Your task to perform on an android device: change the clock display to analog Image 0: 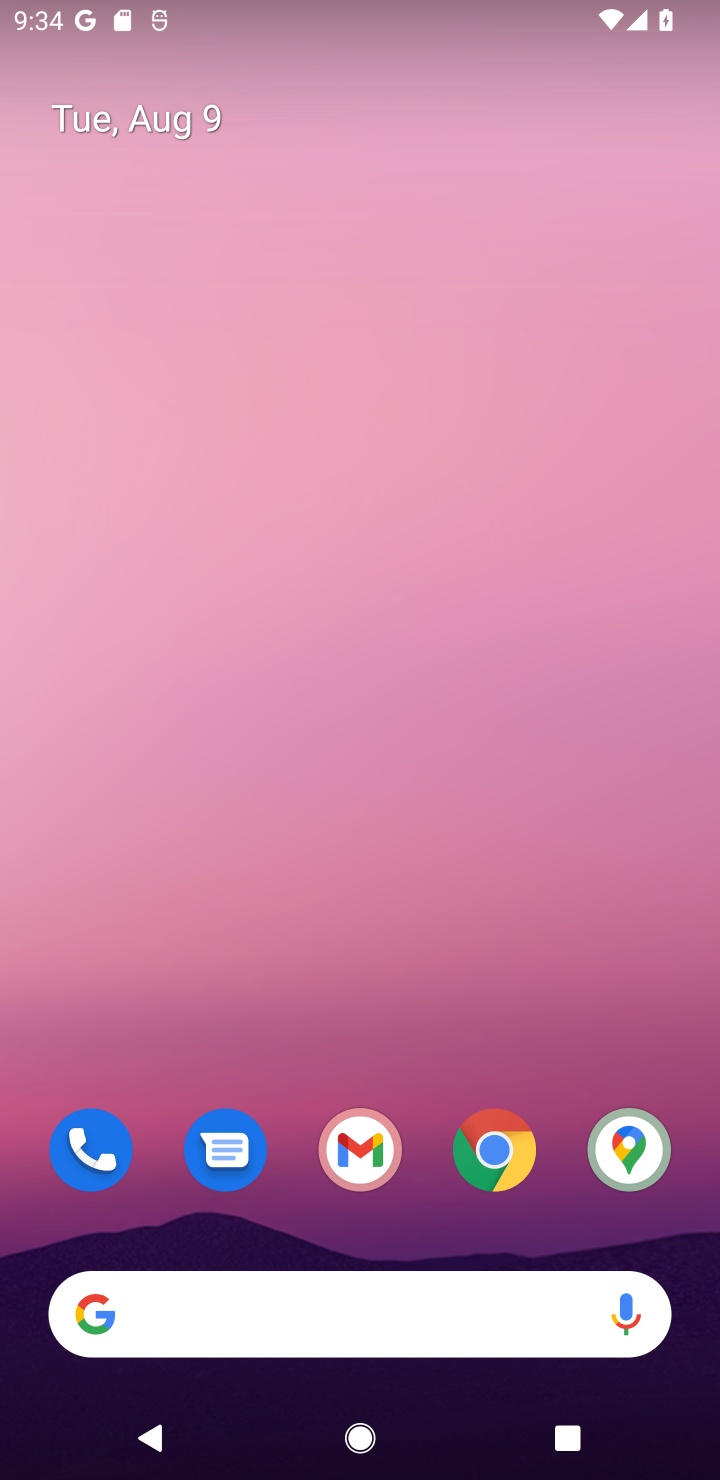
Step 0: drag from (358, 1207) to (447, 5)
Your task to perform on an android device: change the clock display to analog Image 1: 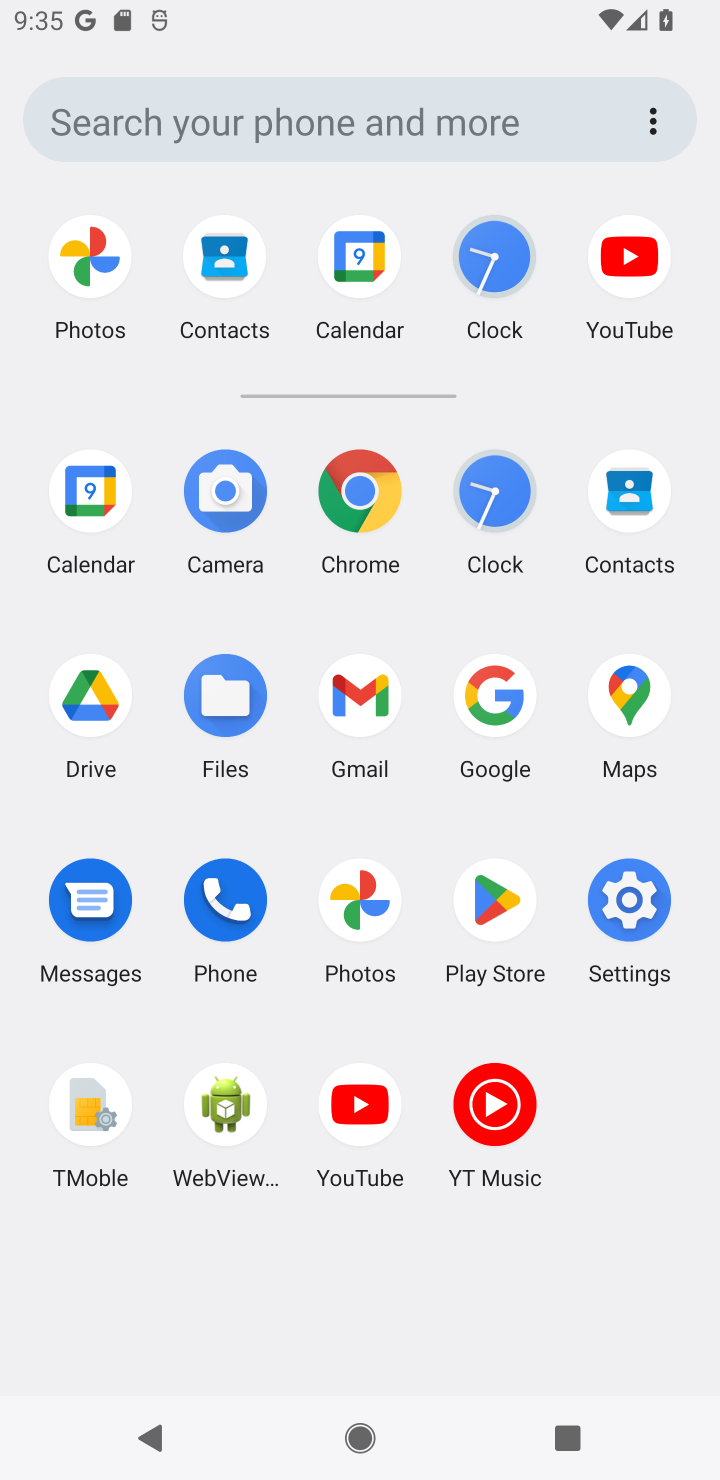
Step 1: click (495, 530)
Your task to perform on an android device: change the clock display to analog Image 2: 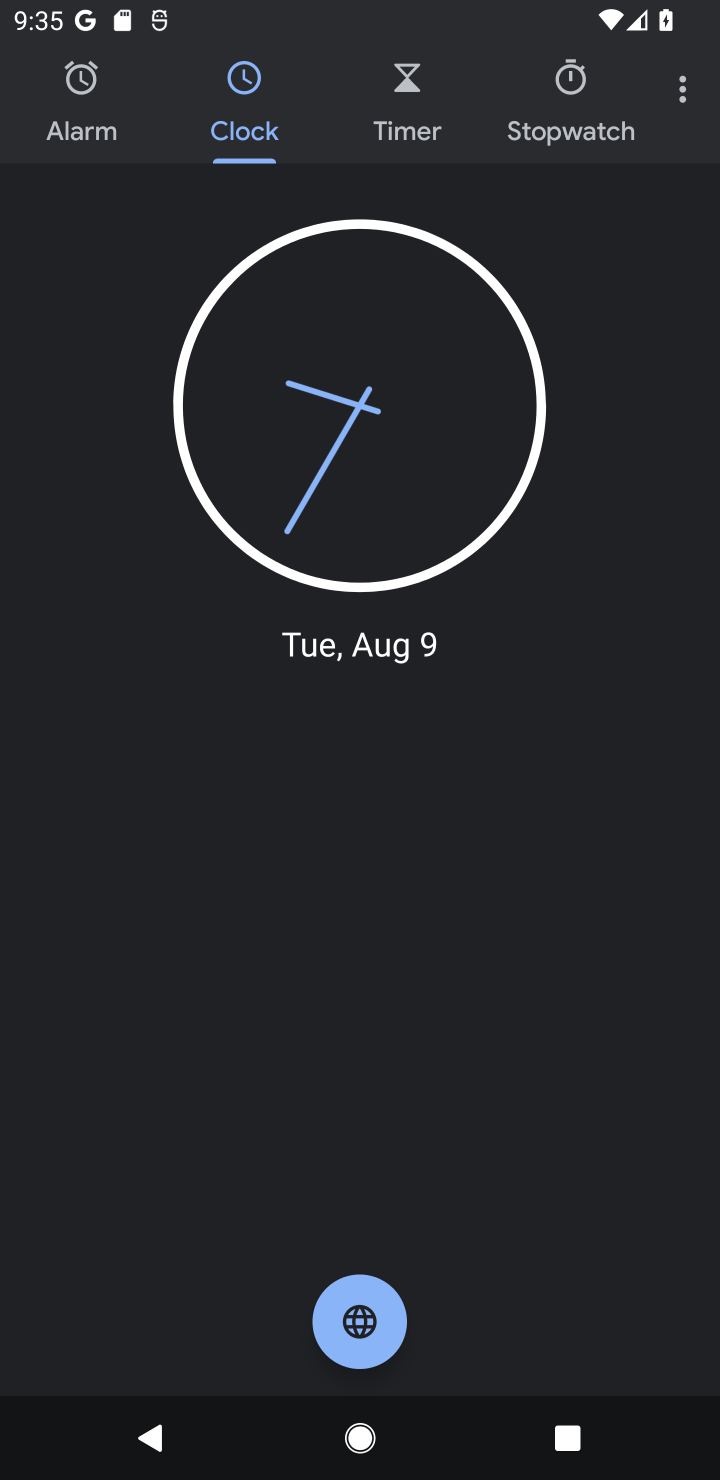
Step 2: click (676, 84)
Your task to perform on an android device: change the clock display to analog Image 3: 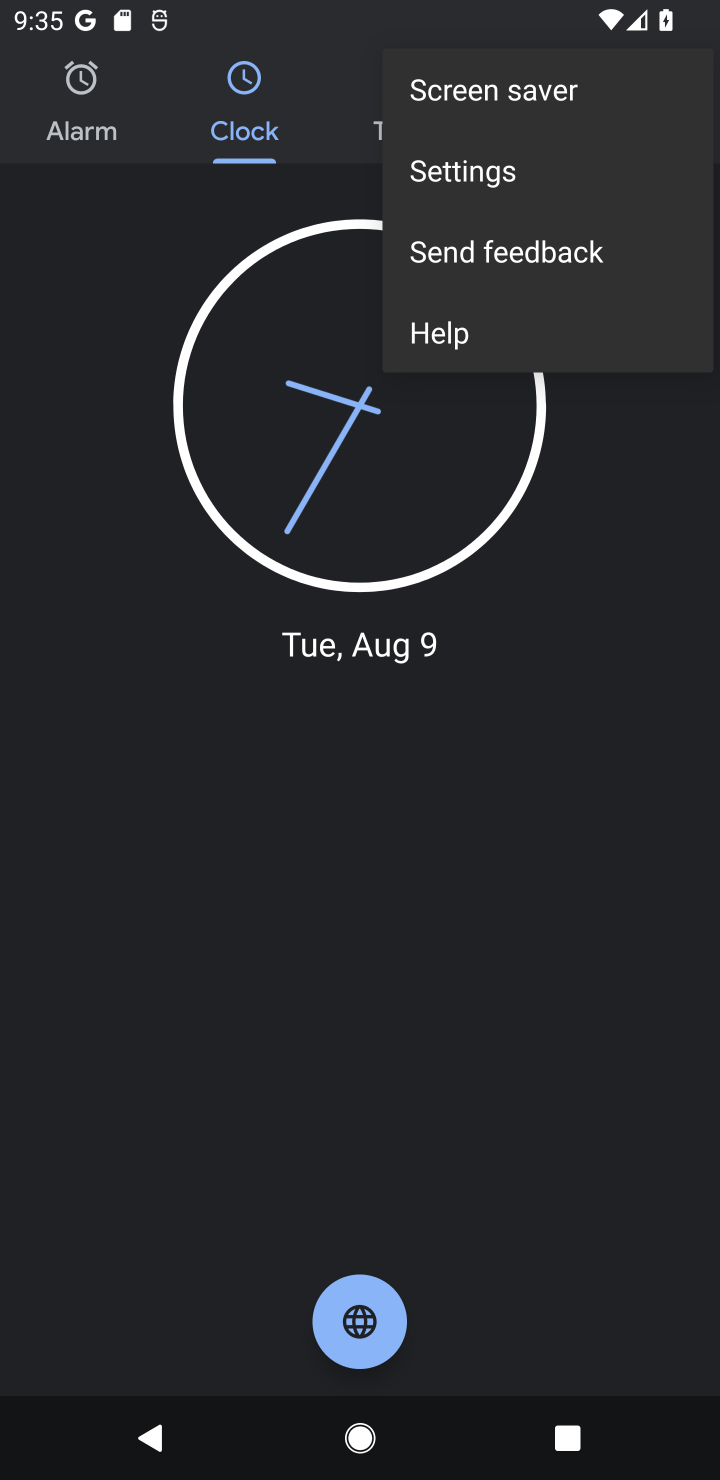
Step 3: click (488, 156)
Your task to perform on an android device: change the clock display to analog Image 4: 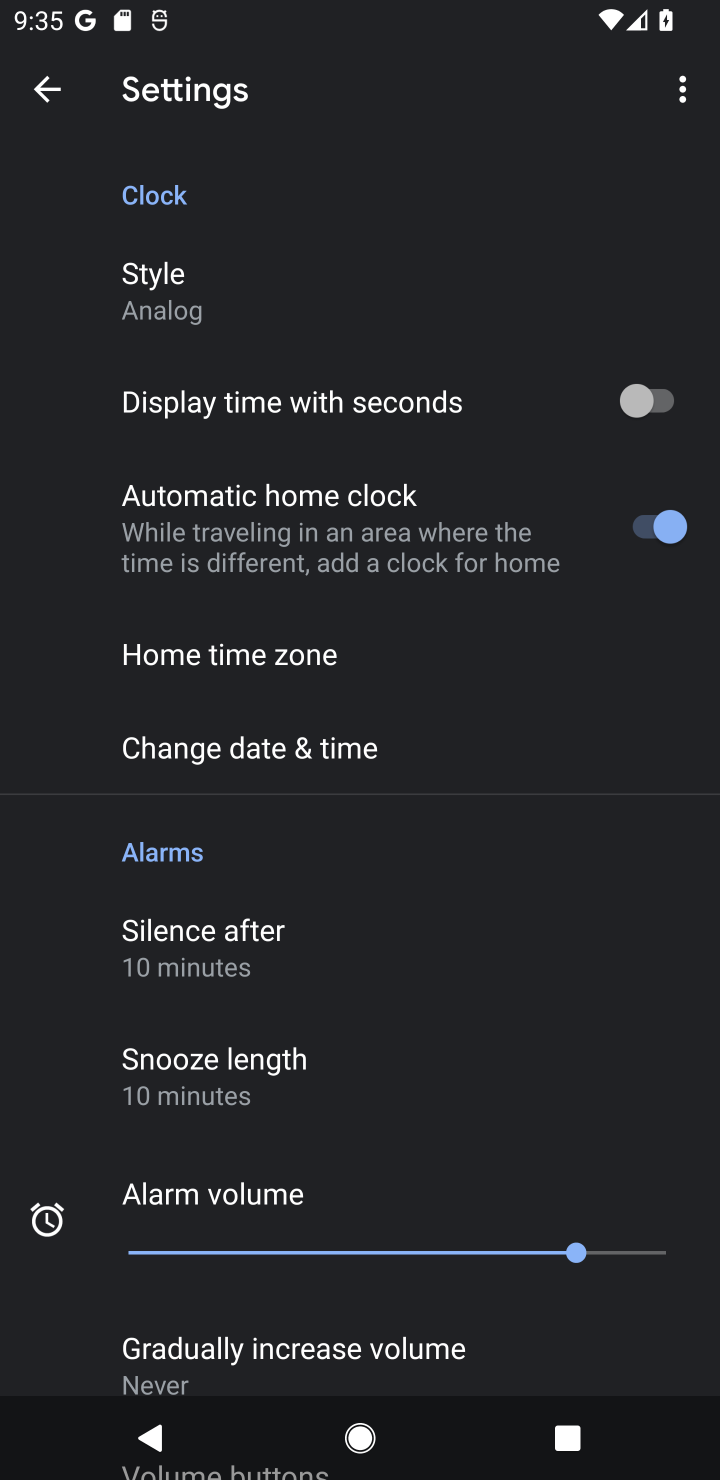
Step 4: task complete